Your task to perform on an android device: toggle data saver in the chrome app Image 0: 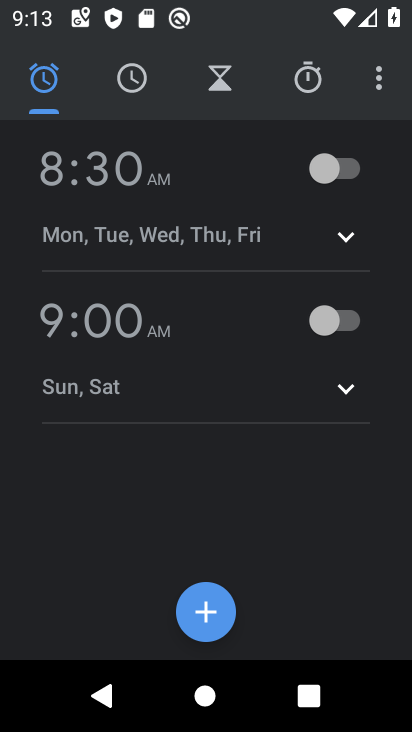
Step 0: press home button
Your task to perform on an android device: toggle data saver in the chrome app Image 1: 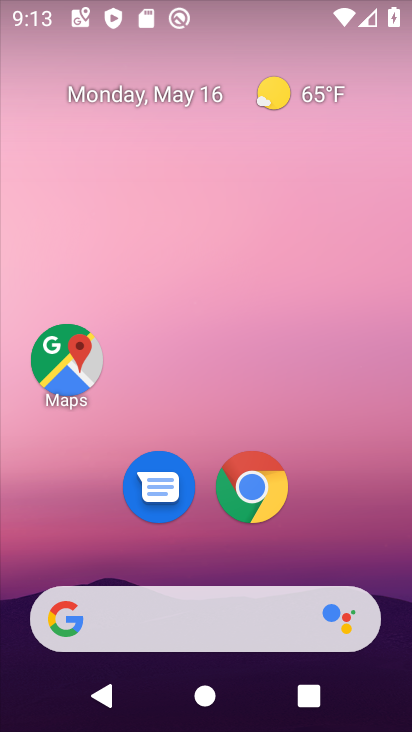
Step 1: drag from (355, 513) to (337, 122)
Your task to perform on an android device: toggle data saver in the chrome app Image 2: 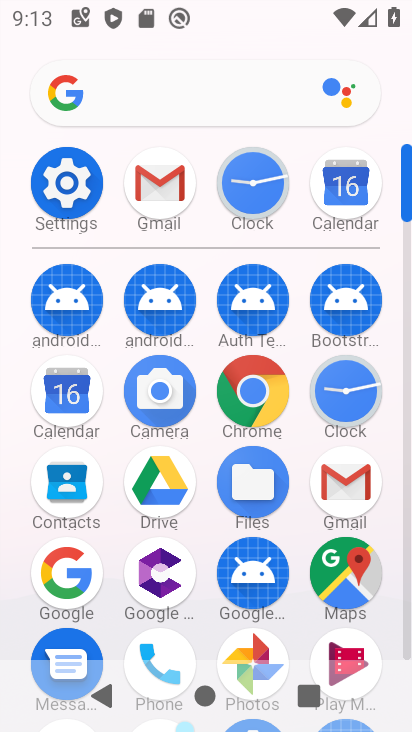
Step 2: click (272, 403)
Your task to perform on an android device: toggle data saver in the chrome app Image 3: 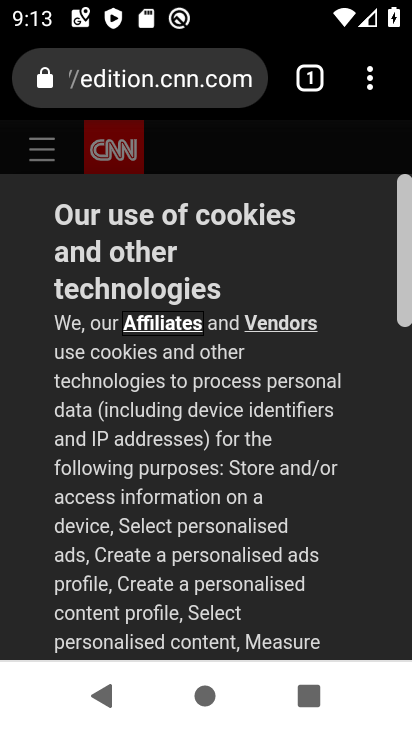
Step 3: click (370, 93)
Your task to perform on an android device: toggle data saver in the chrome app Image 4: 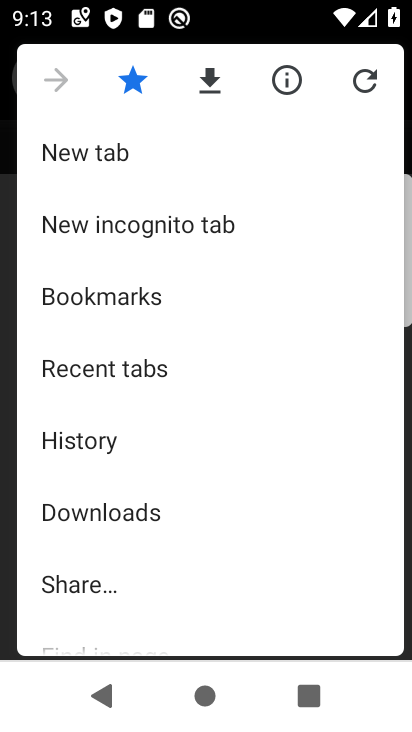
Step 4: drag from (288, 542) to (289, 313)
Your task to perform on an android device: toggle data saver in the chrome app Image 5: 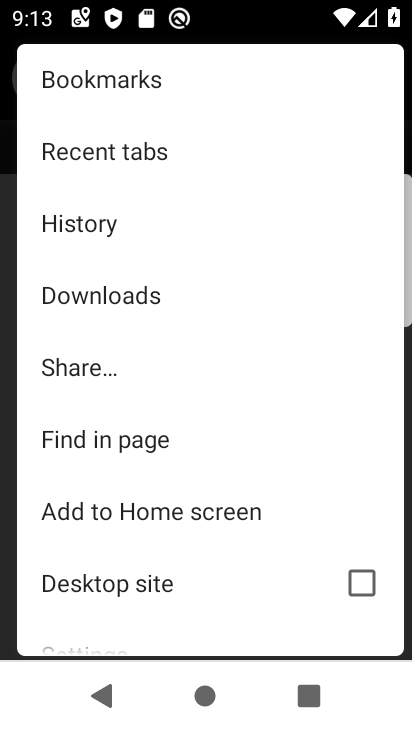
Step 5: drag from (257, 551) to (295, 316)
Your task to perform on an android device: toggle data saver in the chrome app Image 6: 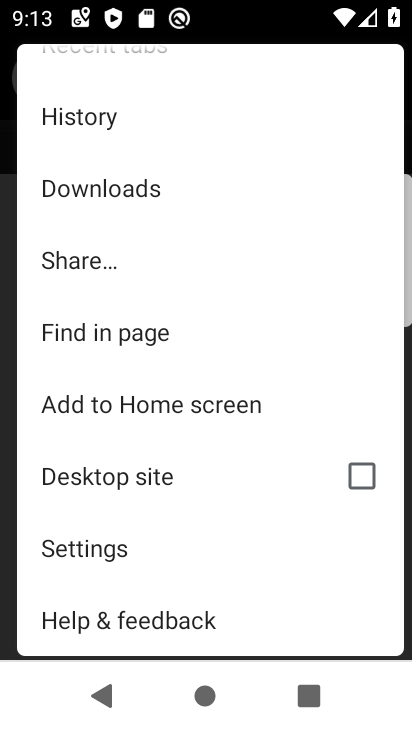
Step 6: click (84, 555)
Your task to perform on an android device: toggle data saver in the chrome app Image 7: 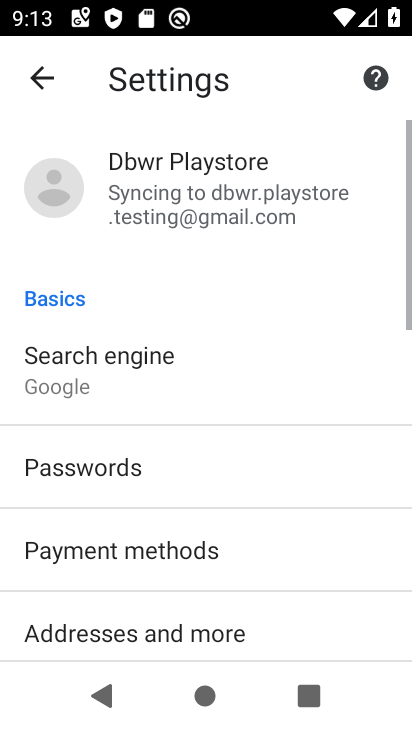
Step 7: drag from (288, 570) to (306, 310)
Your task to perform on an android device: toggle data saver in the chrome app Image 8: 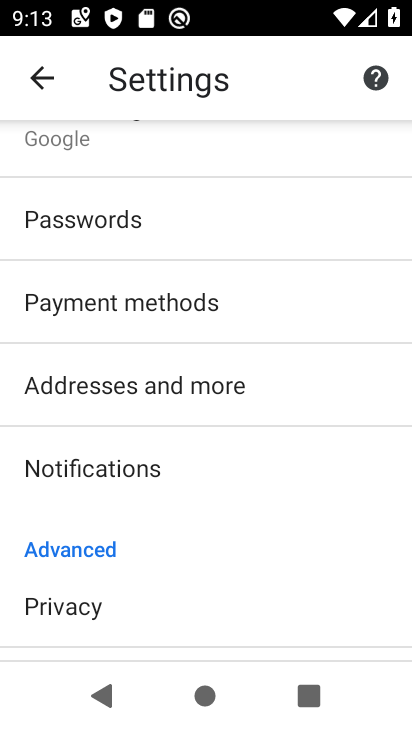
Step 8: drag from (296, 616) to (303, 368)
Your task to perform on an android device: toggle data saver in the chrome app Image 9: 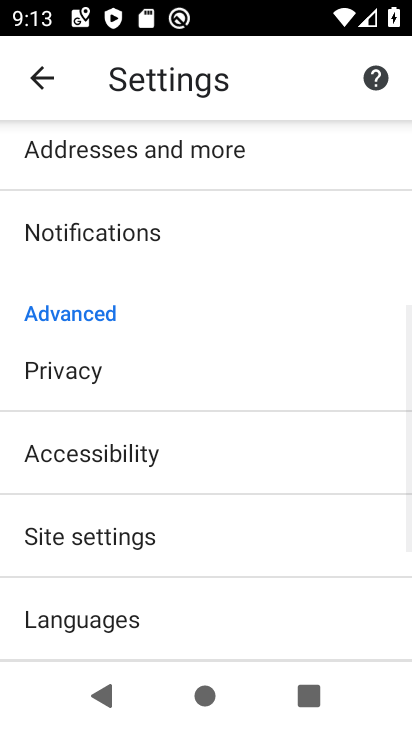
Step 9: drag from (259, 602) to (260, 428)
Your task to perform on an android device: toggle data saver in the chrome app Image 10: 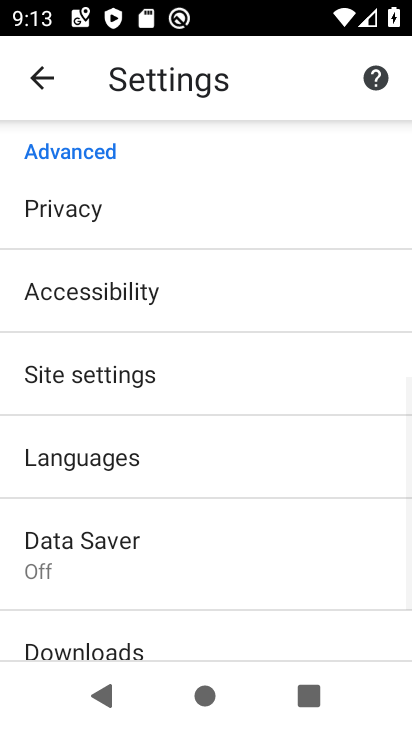
Step 10: drag from (249, 574) to (255, 401)
Your task to perform on an android device: toggle data saver in the chrome app Image 11: 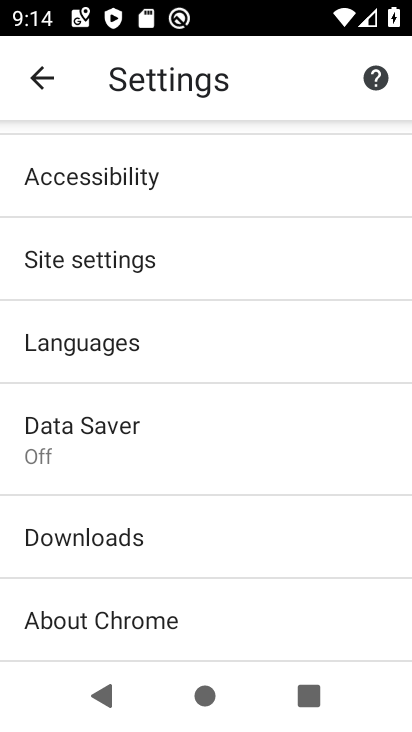
Step 11: click (193, 457)
Your task to perform on an android device: toggle data saver in the chrome app Image 12: 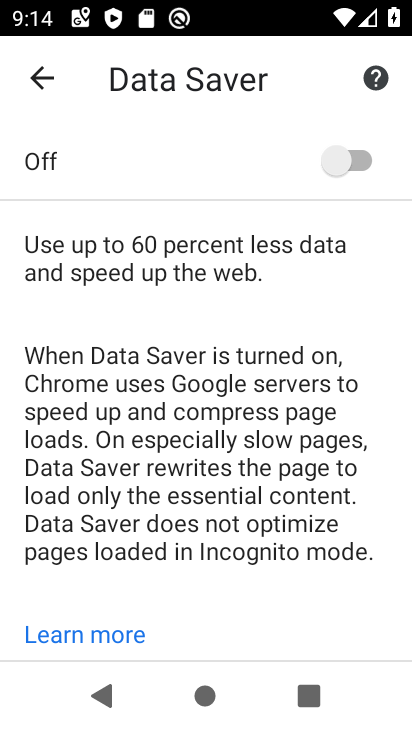
Step 12: click (338, 167)
Your task to perform on an android device: toggle data saver in the chrome app Image 13: 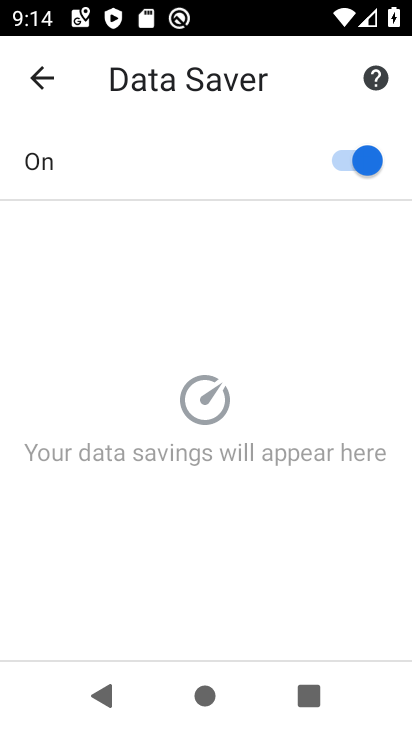
Step 13: task complete